Your task to perform on an android device: change alarm snooze length Image 0: 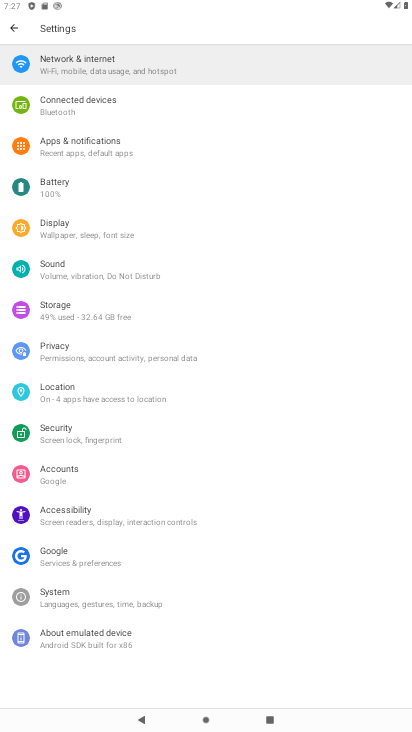
Step 0: press home button
Your task to perform on an android device: change alarm snooze length Image 1: 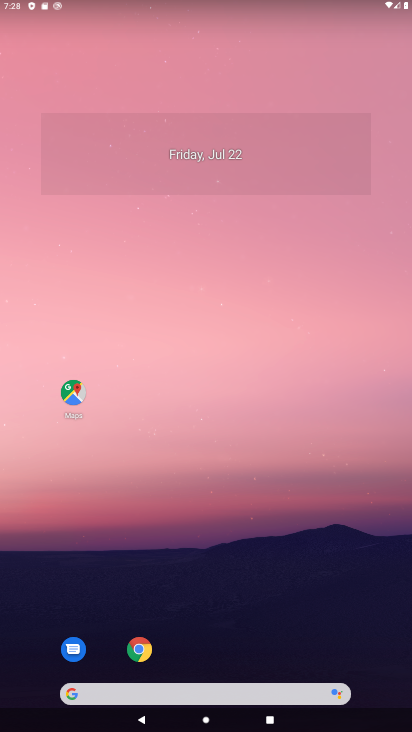
Step 1: drag from (224, 598) to (267, 163)
Your task to perform on an android device: change alarm snooze length Image 2: 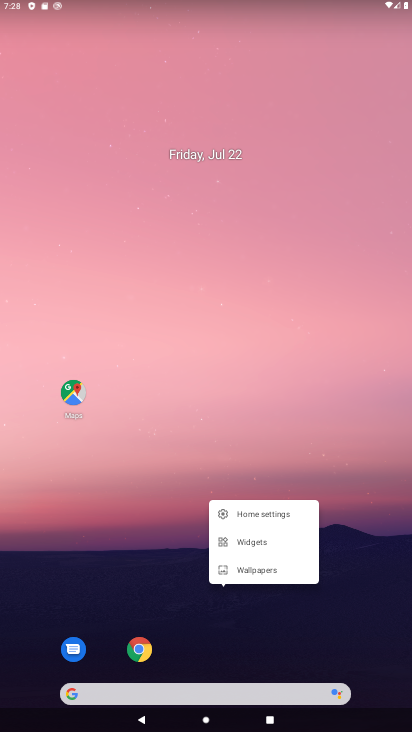
Step 2: click (228, 414)
Your task to perform on an android device: change alarm snooze length Image 3: 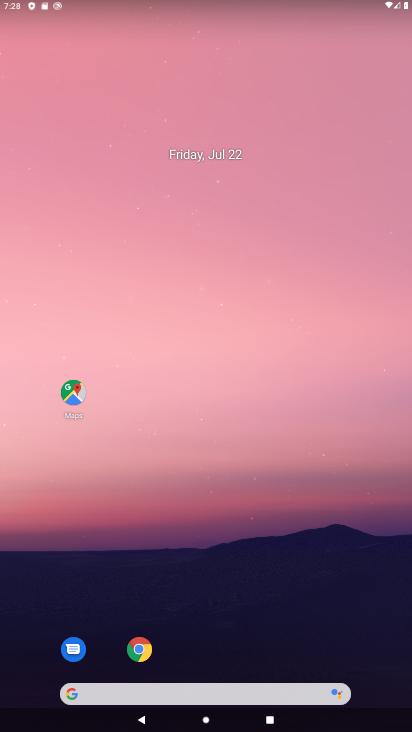
Step 3: drag from (240, 593) to (292, 248)
Your task to perform on an android device: change alarm snooze length Image 4: 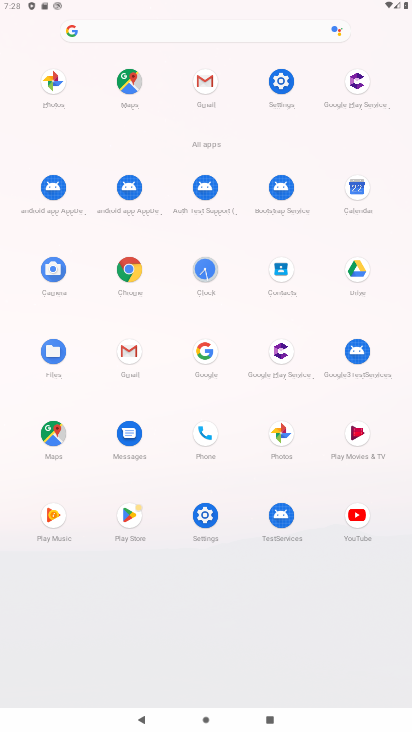
Step 4: click (205, 89)
Your task to perform on an android device: change alarm snooze length Image 5: 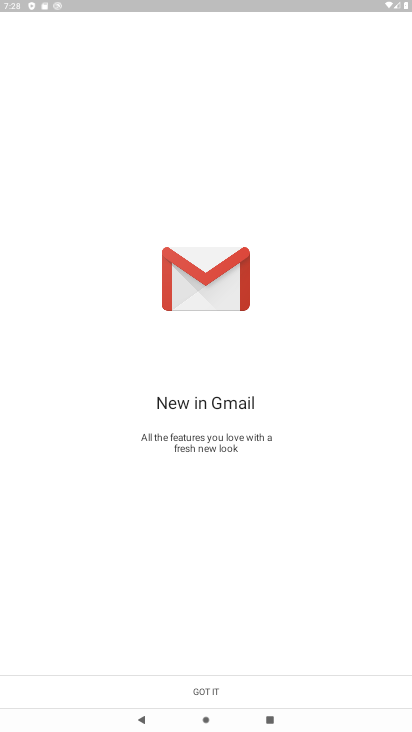
Step 5: click (198, 686)
Your task to perform on an android device: change alarm snooze length Image 6: 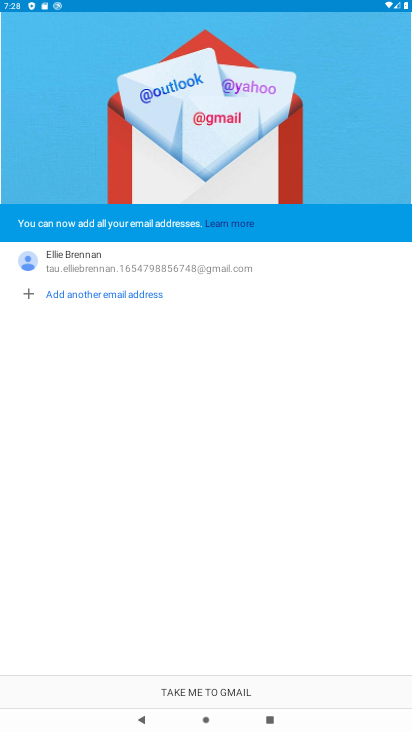
Step 6: click (209, 689)
Your task to perform on an android device: change alarm snooze length Image 7: 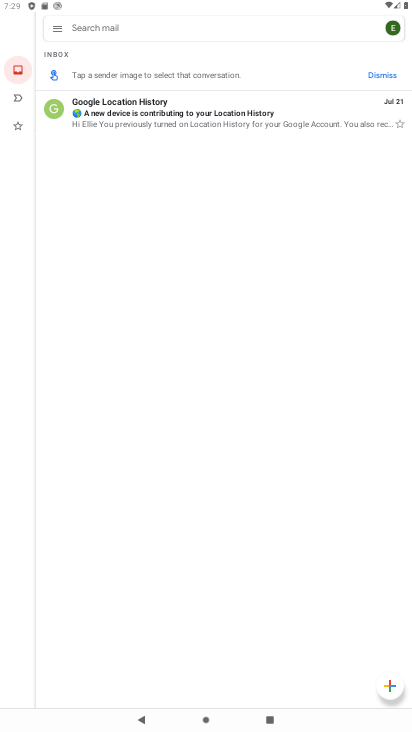
Step 7: click (56, 32)
Your task to perform on an android device: change alarm snooze length Image 8: 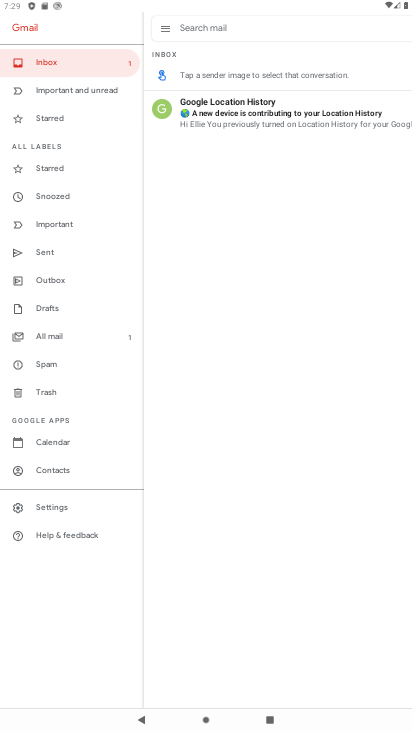
Step 8: click (65, 195)
Your task to perform on an android device: change alarm snooze length Image 9: 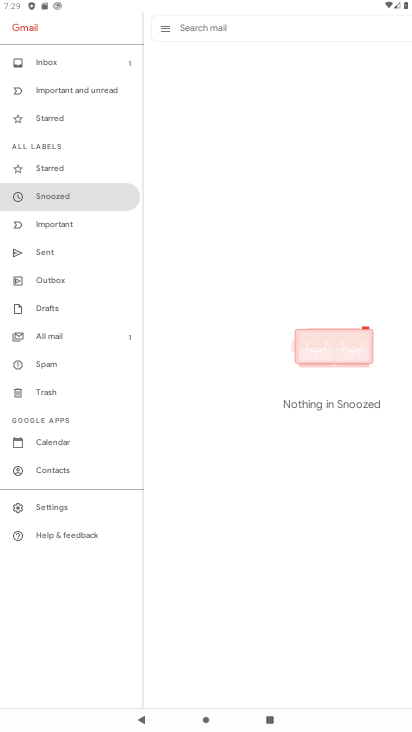
Step 9: task complete